Your task to perform on an android device: Open calendar and show me the second week of next month Image 0: 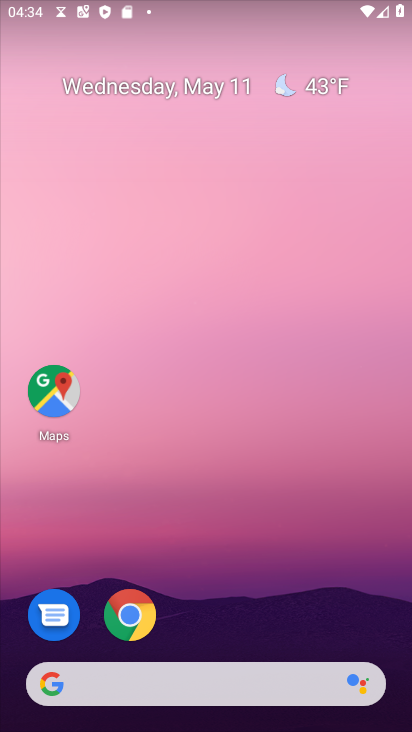
Step 0: drag from (214, 460) to (193, 23)
Your task to perform on an android device: Open calendar and show me the second week of next month Image 1: 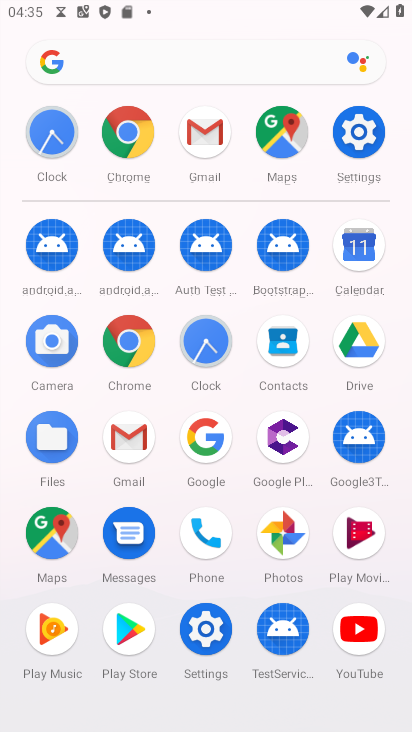
Step 1: drag from (26, 527) to (4, 237)
Your task to perform on an android device: Open calendar and show me the second week of next month Image 2: 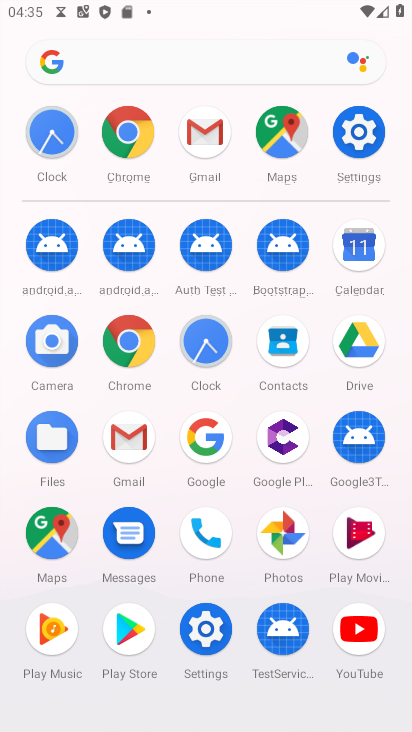
Step 2: click (361, 246)
Your task to perform on an android device: Open calendar and show me the second week of next month Image 3: 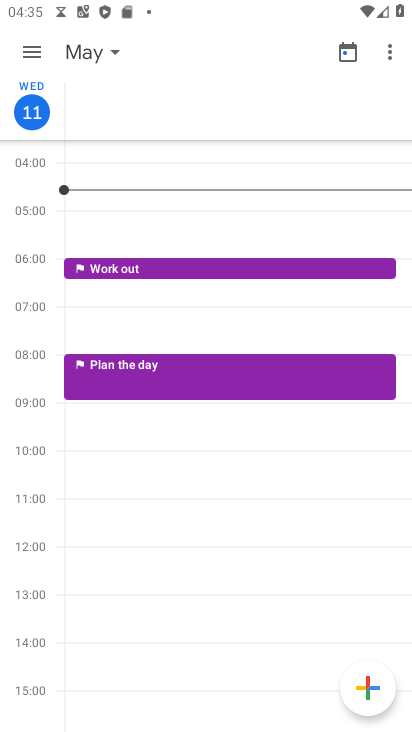
Step 3: click (93, 52)
Your task to perform on an android device: Open calendar and show me the second week of next month Image 4: 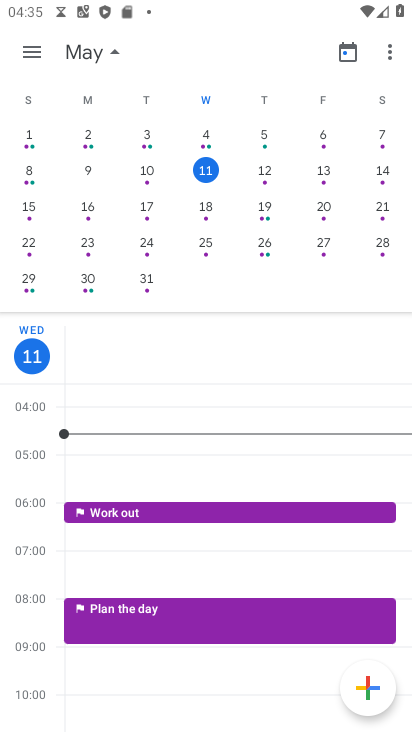
Step 4: drag from (377, 208) to (20, 53)
Your task to perform on an android device: Open calendar and show me the second week of next month Image 5: 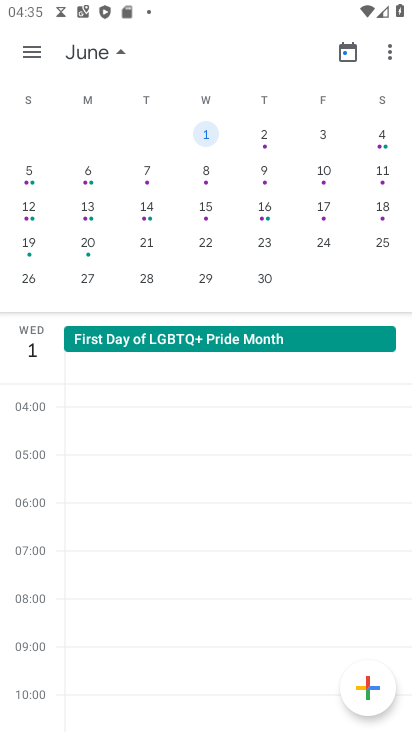
Step 5: click (25, 166)
Your task to perform on an android device: Open calendar and show me the second week of next month Image 6: 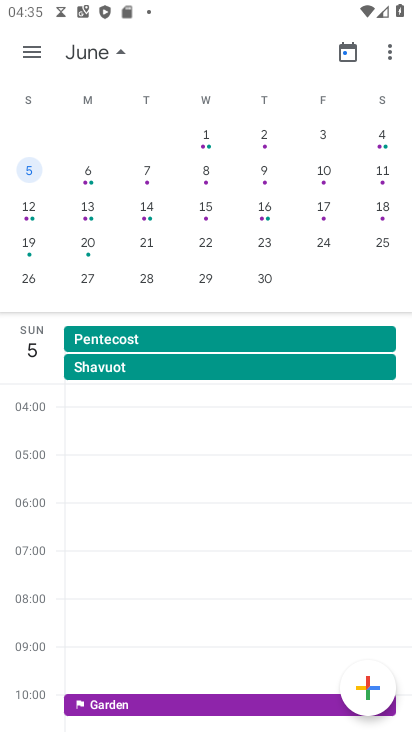
Step 6: click (31, 57)
Your task to perform on an android device: Open calendar and show me the second week of next month Image 7: 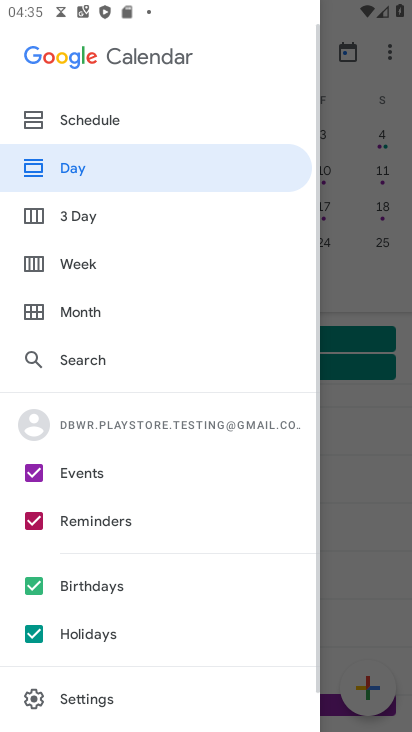
Step 7: click (76, 261)
Your task to perform on an android device: Open calendar and show me the second week of next month Image 8: 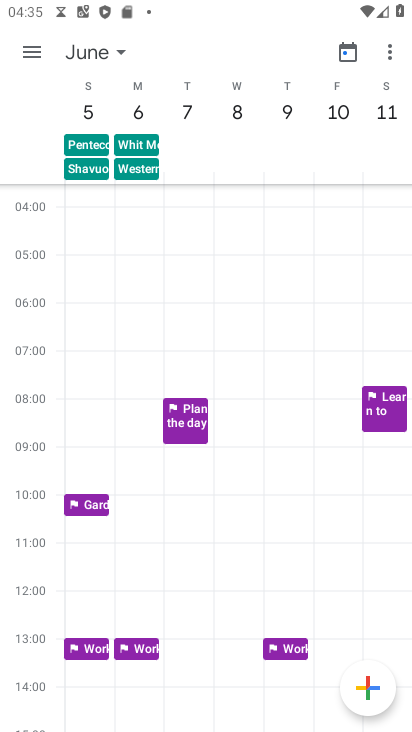
Step 8: task complete